Your task to perform on an android device: visit the assistant section in the google photos Image 0: 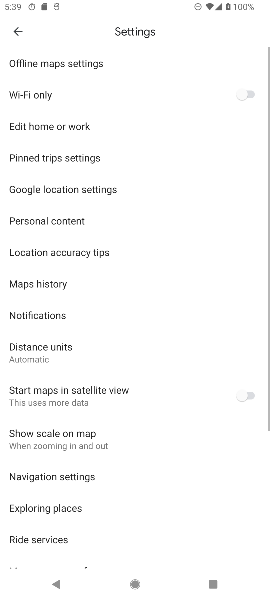
Step 0: press back button
Your task to perform on an android device: visit the assistant section in the google photos Image 1: 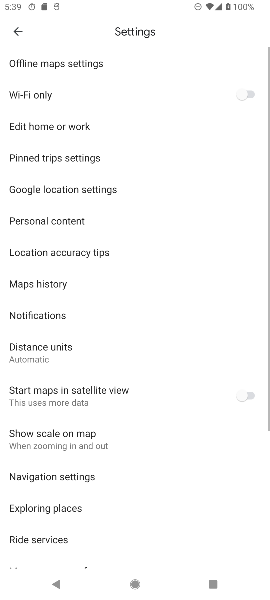
Step 1: press back button
Your task to perform on an android device: visit the assistant section in the google photos Image 2: 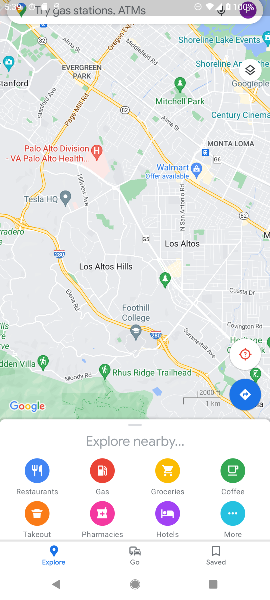
Step 2: press back button
Your task to perform on an android device: visit the assistant section in the google photos Image 3: 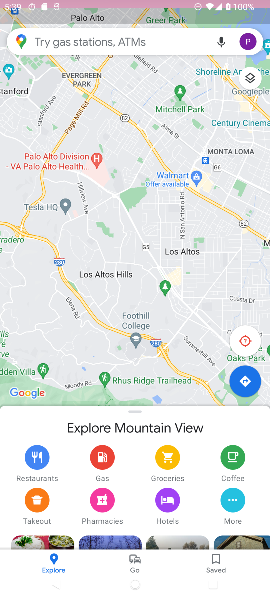
Step 3: press back button
Your task to perform on an android device: visit the assistant section in the google photos Image 4: 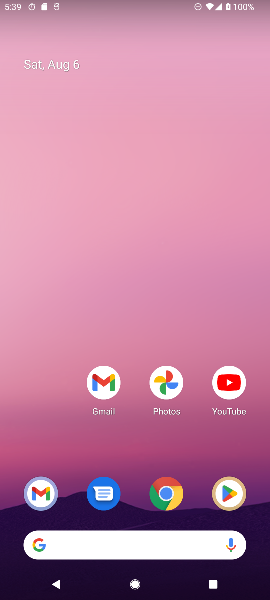
Step 4: press home button
Your task to perform on an android device: visit the assistant section in the google photos Image 5: 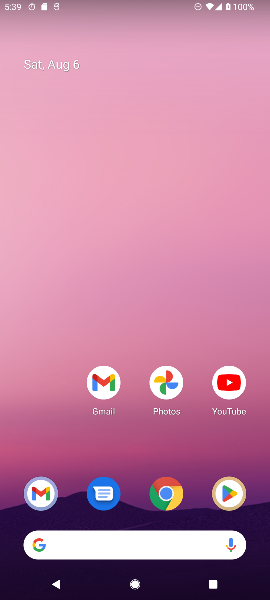
Step 5: drag from (135, 318) to (110, 173)
Your task to perform on an android device: visit the assistant section in the google photos Image 6: 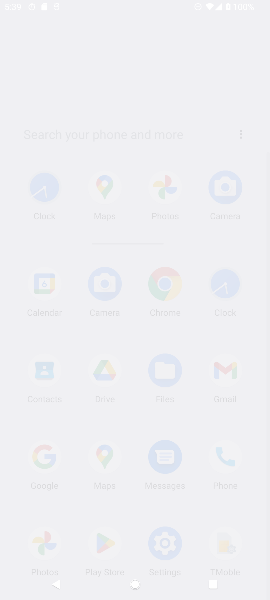
Step 6: drag from (143, 405) to (95, 100)
Your task to perform on an android device: visit the assistant section in the google photos Image 7: 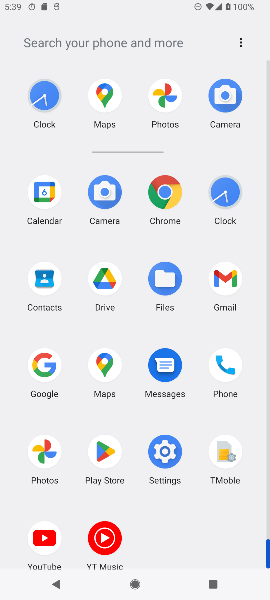
Step 7: click (46, 457)
Your task to perform on an android device: visit the assistant section in the google photos Image 8: 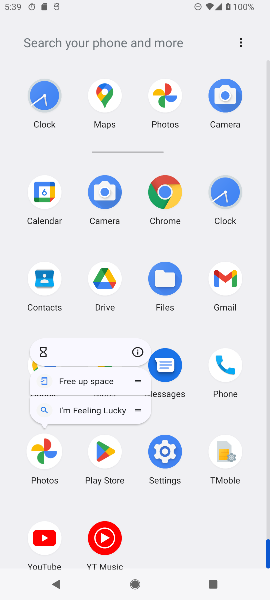
Step 8: click (46, 457)
Your task to perform on an android device: visit the assistant section in the google photos Image 9: 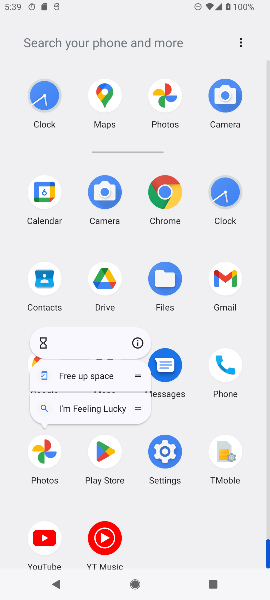
Step 9: click (46, 457)
Your task to perform on an android device: visit the assistant section in the google photos Image 10: 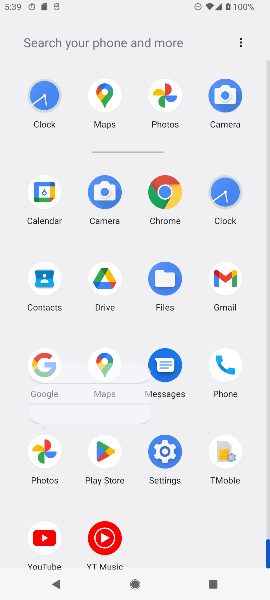
Step 10: click (49, 458)
Your task to perform on an android device: visit the assistant section in the google photos Image 11: 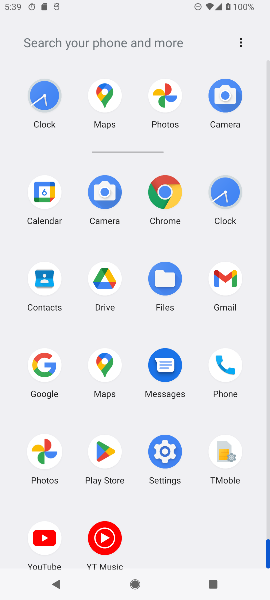
Step 11: click (50, 458)
Your task to perform on an android device: visit the assistant section in the google photos Image 12: 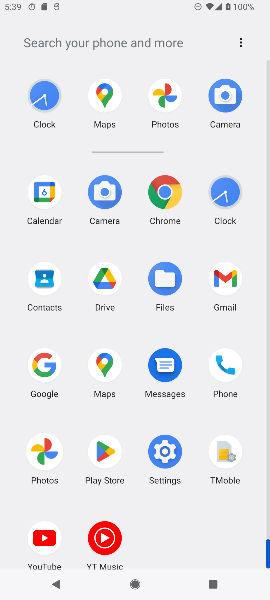
Step 12: click (50, 458)
Your task to perform on an android device: visit the assistant section in the google photos Image 13: 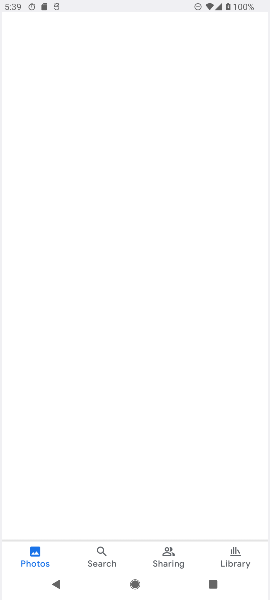
Step 13: click (50, 458)
Your task to perform on an android device: visit the assistant section in the google photos Image 14: 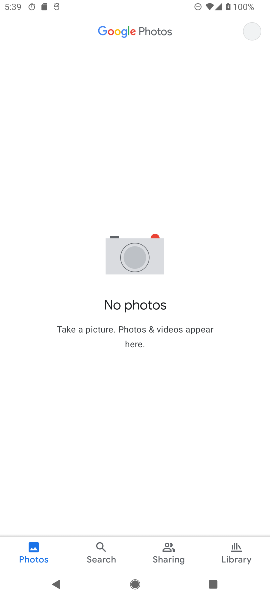
Step 14: click (48, 460)
Your task to perform on an android device: visit the assistant section in the google photos Image 15: 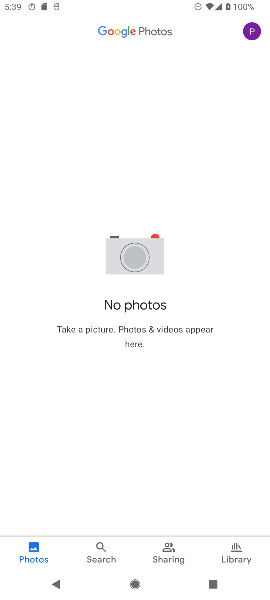
Step 15: click (48, 460)
Your task to perform on an android device: visit the assistant section in the google photos Image 16: 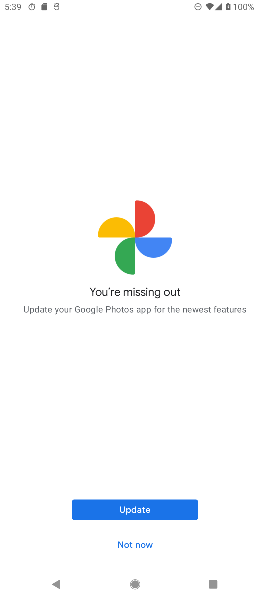
Step 16: click (137, 548)
Your task to perform on an android device: visit the assistant section in the google photos Image 17: 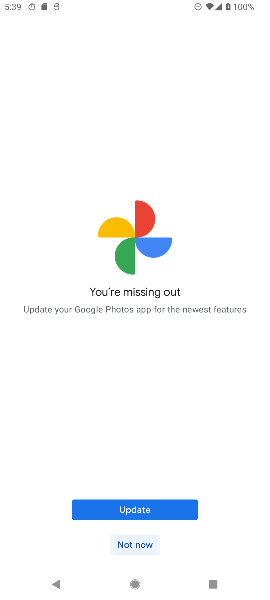
Step 17: click (134, 542)
Your task to perform on an android device: visit the assistant section in the google photos Image 18: 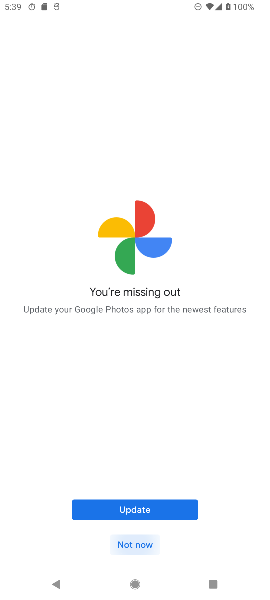
Step 18: click (135, 542)
Your task to perform on an android device: visit the assistant section in the google photos Image 19: 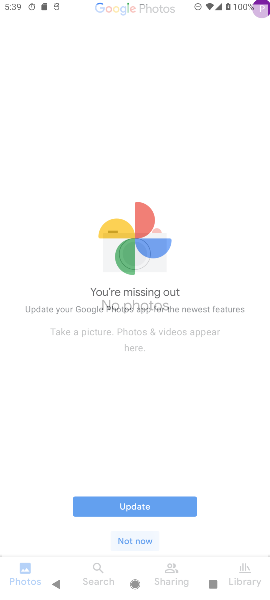
Step 19: click (136, 542)
Your task to perform on an android device: visit the assistant section in the google photos Image 20: 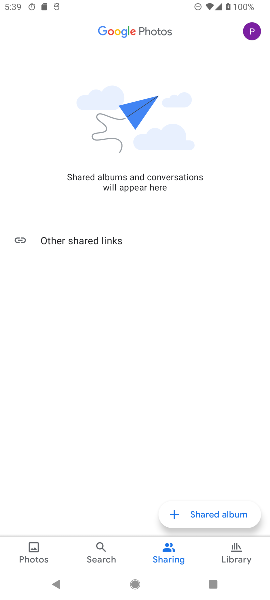
Step 20: drag from (248, 37) to (196, 518)
Your task to perform on an android device: visit the assistant section in the google photos Image 21: 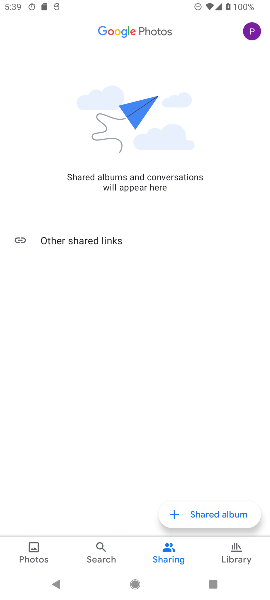
Step 21: click (168, 558)
Your task to perform on an android device: visit the assistant section in the google photos Image 22: 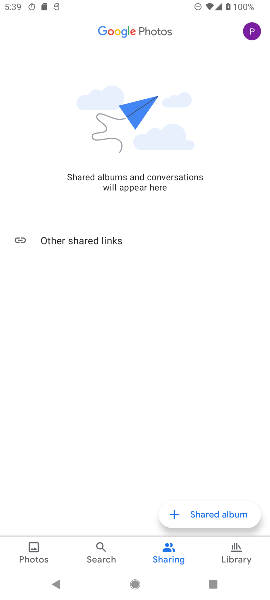
Step 22: click (168, 558)
Your task to perform on an android device: visit the assistant section in the google photos Image 23: 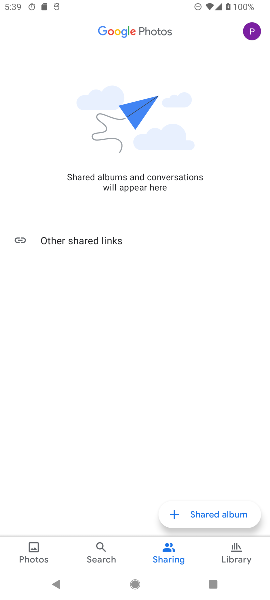
Step 23: click (225, 557)
Your task to perform on an android device: visit the assistant section in the google photos Image 24: 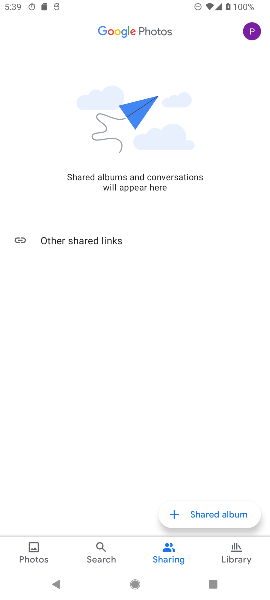
Step 24: click (225, 557)
Your task to perform on an android device: visit the assistant section in the google photos Image 25: 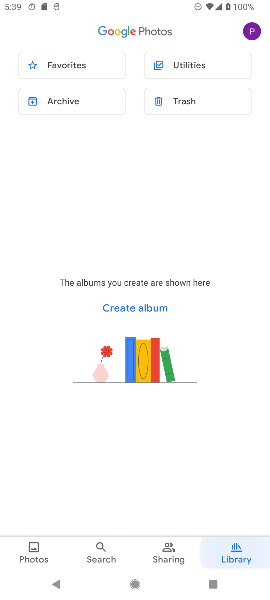
Step 25: click (217, 549)
Your task to perform on an android device: visit the assistant section in the google photos Image 26: 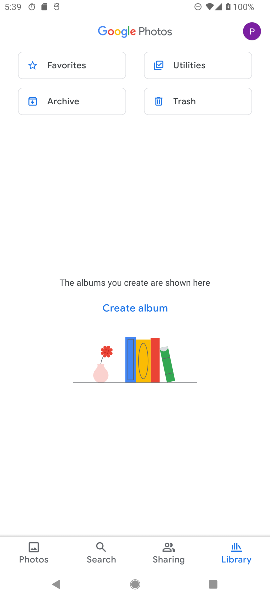
Step 26: task complete